Your task to perform on an android device: turn on notifications settings in the gmail app Image 0: 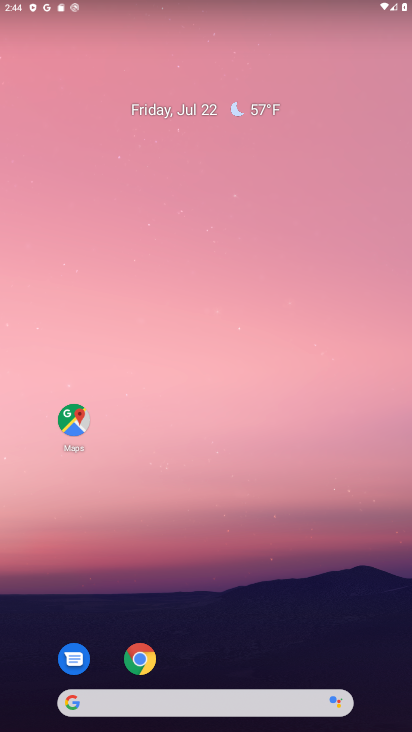
Step 0: drag from (265, 659) to (263, 85)
Your task to perform on an android device: turn on notifications settings in the gmail app Image 1: 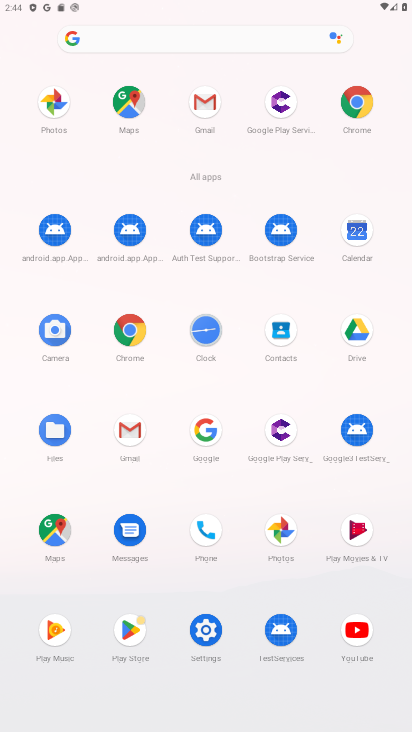
Step 1: click (207, 110)
Your task to perform on an android device: turn on notifications settings in the gmail app Image 2: 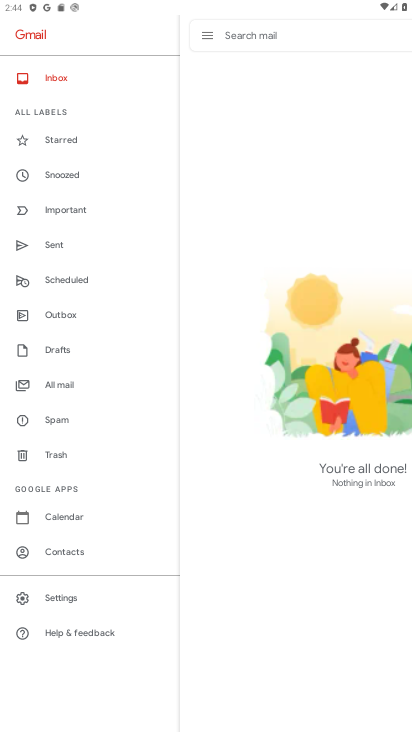
Step 2: click (54, 599)
Your task to perform on an android device: turn on notifications settings in the gmail app Image 3: 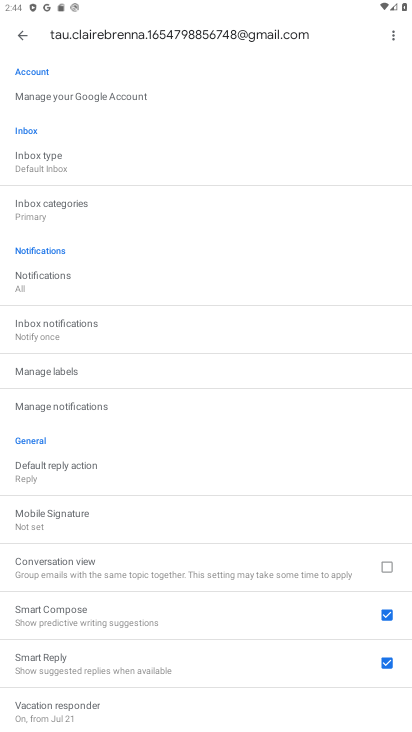
Step 3: click (64, 399)
Your task to perform on an android device: turn on notifications settings in the gmail app Image 4: 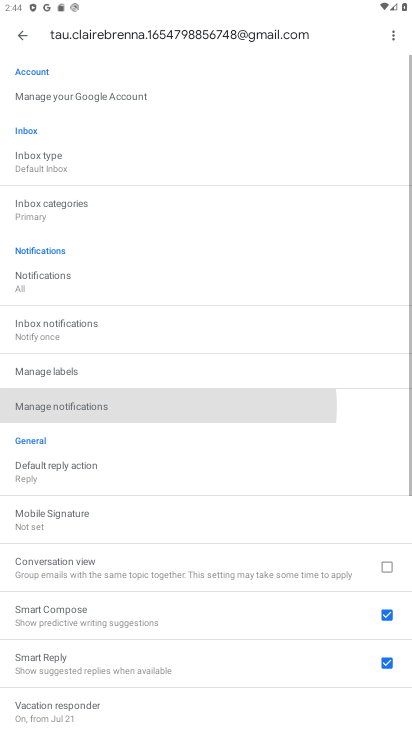
Step 4: click (64, 399)
Your task to perform on an android device: turn on notifications settings in the gmail app Image 5: 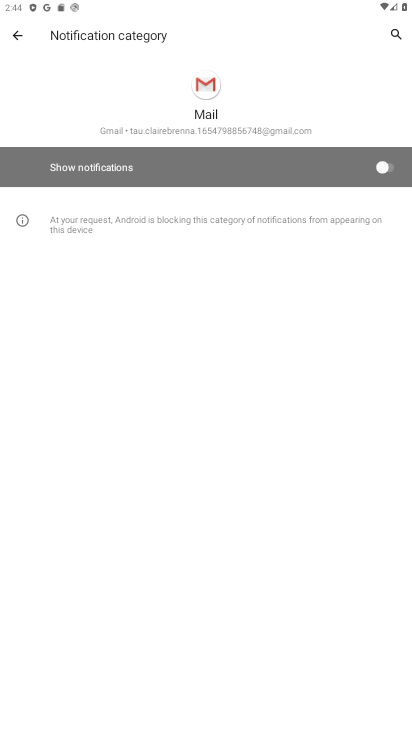
Step 5: click (386, 157)
Your task to perform on an android device: turn on notifications settings in the gmail app Image 6: 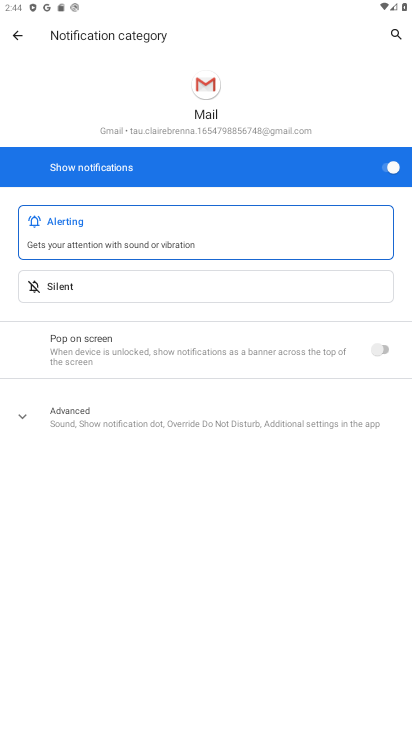
Step 6: task complete